Your task to perform on an android device: Go to battery settings Image 0: 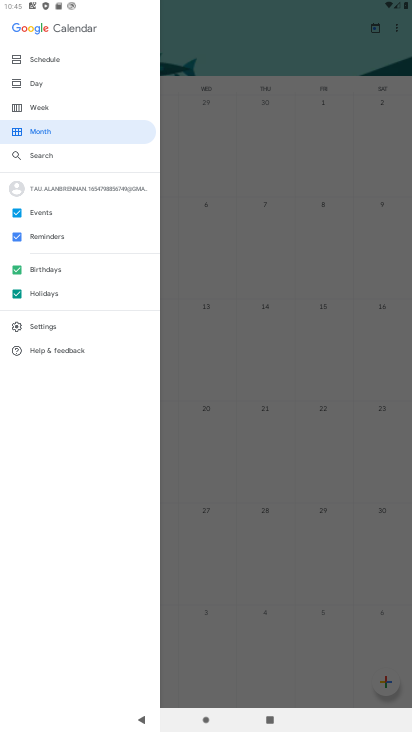
Step 0: press home button
Your task to perform on an android device: Go to battery settings Image 1: 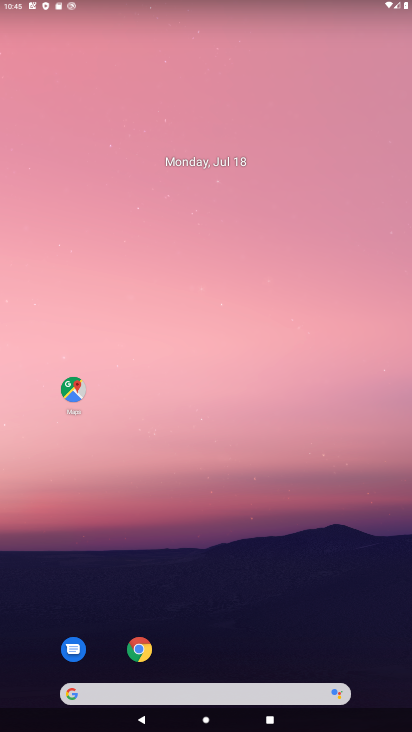
Step 1: drag from (284, 595) to (256, 104)
Your task to perform on an android device: Go to battery settings Image 2: 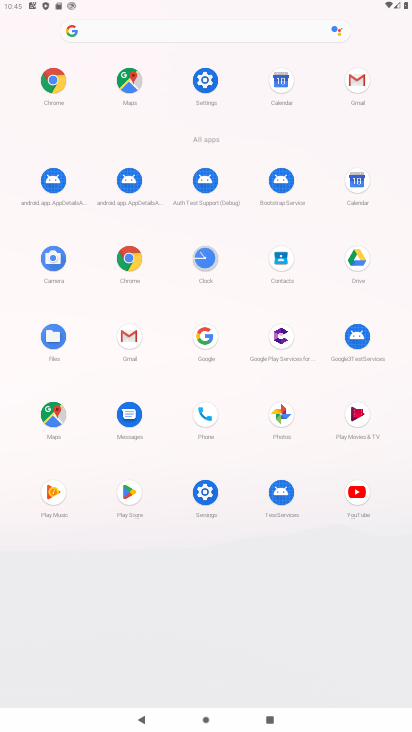
Step 2: click (205, 76)
Your task to perform on an android device: Go to battery settings Image 3: 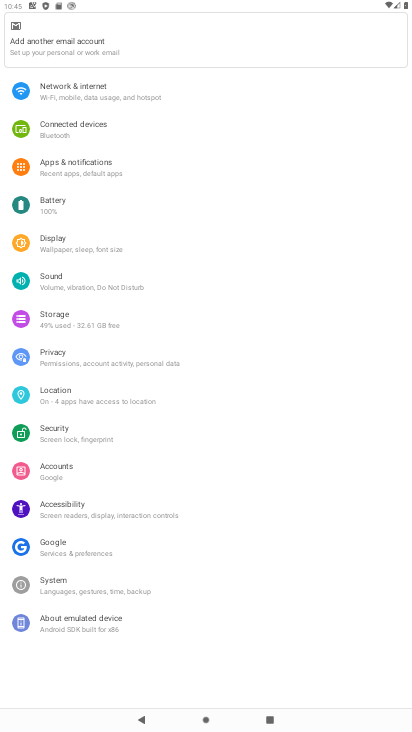
Step 3: click (47, 200)
Your task to perform on an android device: Go to battery settings Image 4: 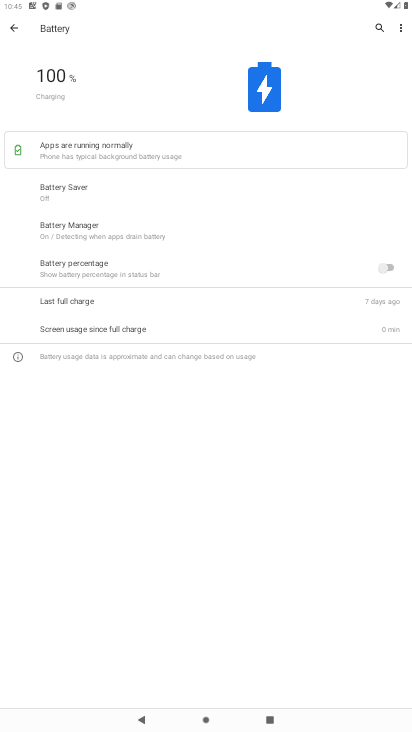
Step 4: task complete